Your task to perform on an android device: toggle wifi Image 0: 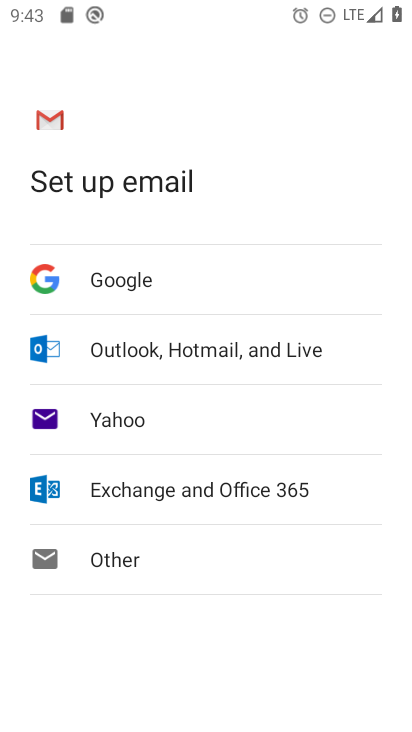
Step 0: press home button
Your task to perform on an android device: toggle wifi Image 1: 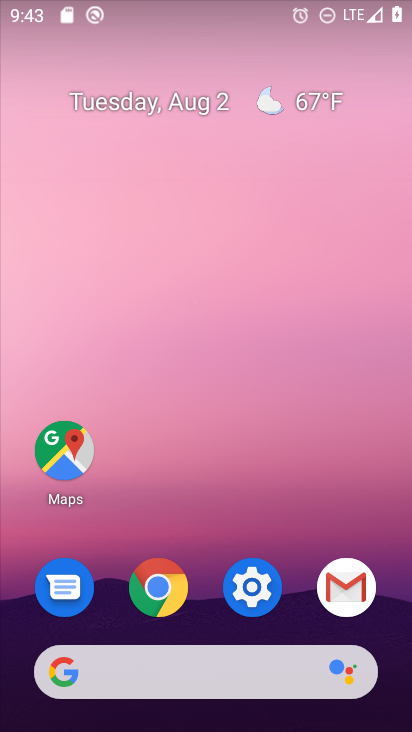
Step 1: click (256, 594)
Your task to perform on an android device: toggle wifi Image 2: 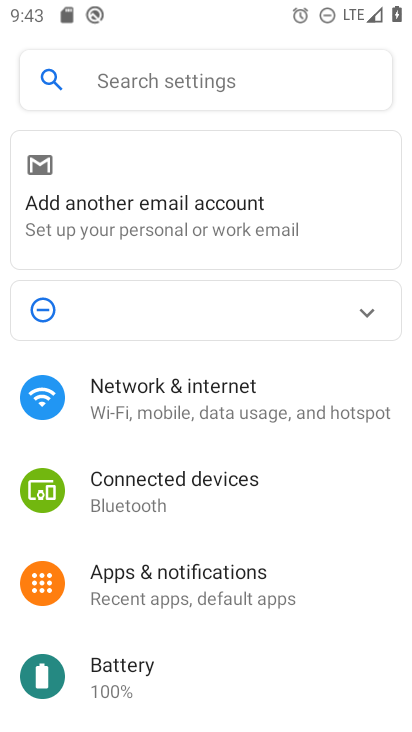
Step 2: click (193, 400)
Your task to perform on an android device: toggle wifi Image 3: 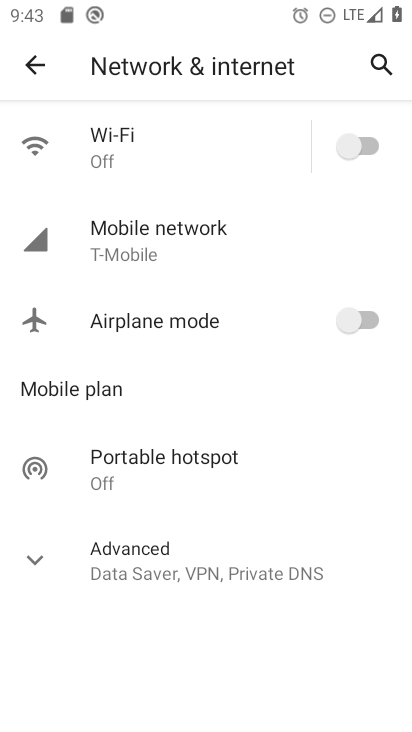
Step 3: click (134, 143)
Your task to perform on an android device: toggle wifi Image 4: 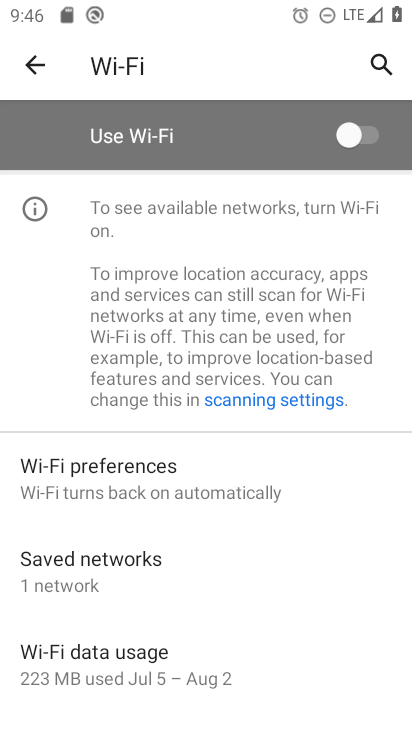
Step 4: task complete